Your task to perform on an android device: When is my next appointment? Image 0: 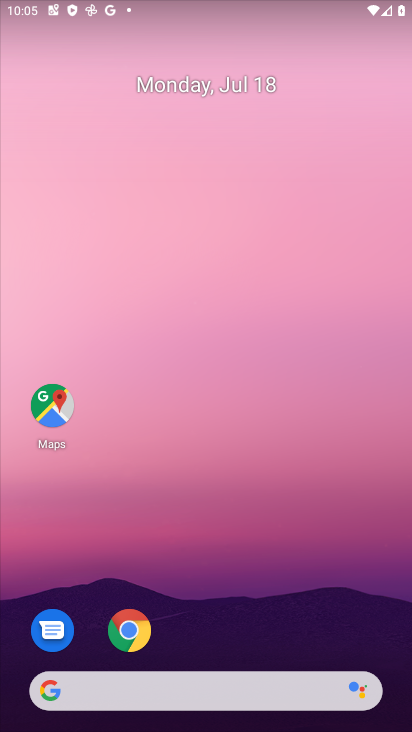
Step 0: drag from (356, 619) to (245, 73)
Your task to perform on an android device: When is my next appointment? Image 1: 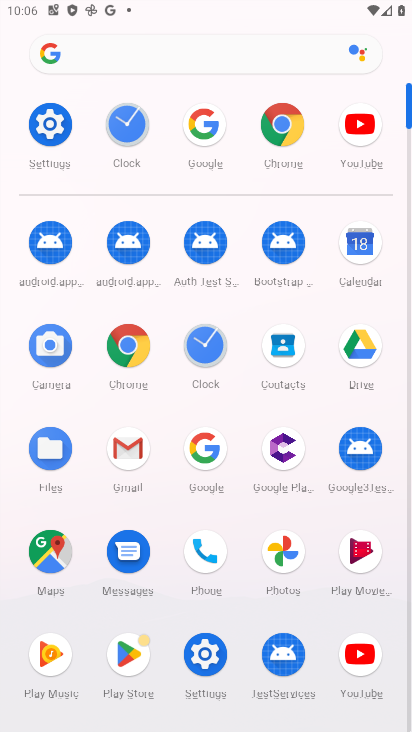
Step 1: click (375, 245)
Your task to perform on an android device: When is my next appointment? Image 2: 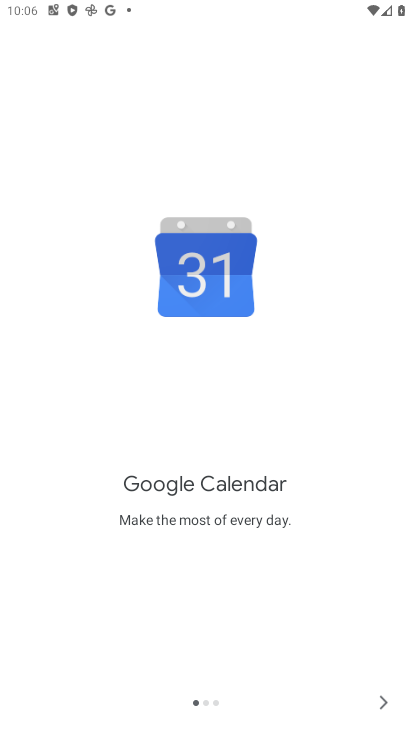
Step 2: click (385, 696)
Your task to perform on an android device: When is my next appointment? Image 3: 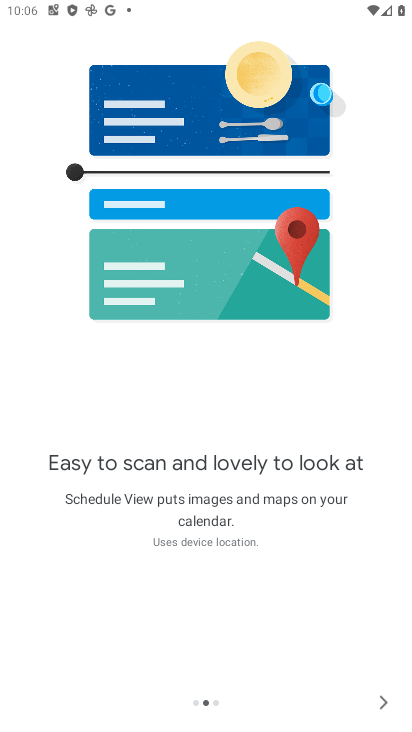
Step 3: click (385, 696)
Your task to perform on an android device: When is my next appointment? Image 4: 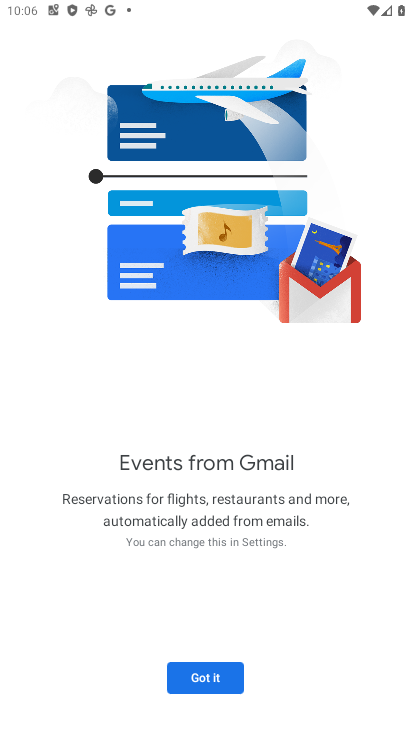
Step 4: click (210, 679)
Your task to perform on an android device: When is my next appointment? Image 5: 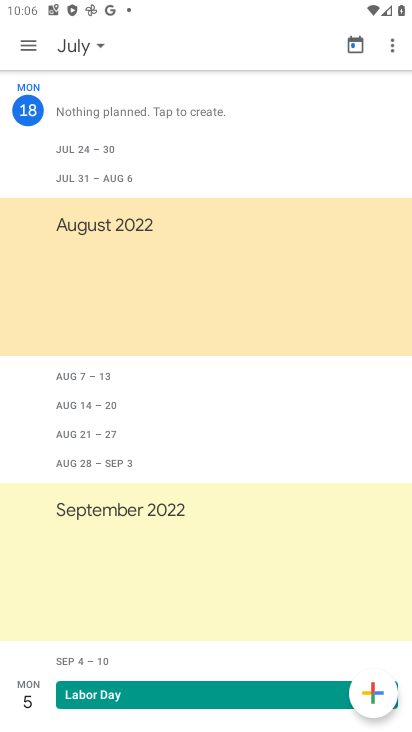
Step 5: task complete